Your task to perform on an android device: toggle notifications settings in the gmail app Image 0: 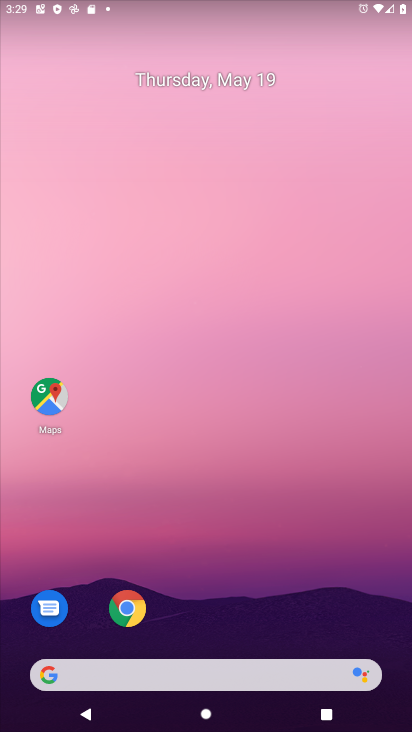
Step 0: drag from (318, 618) to (239, 116)
Your task to perform on an android device: toggle notifications settings in the gmail app Image 1: 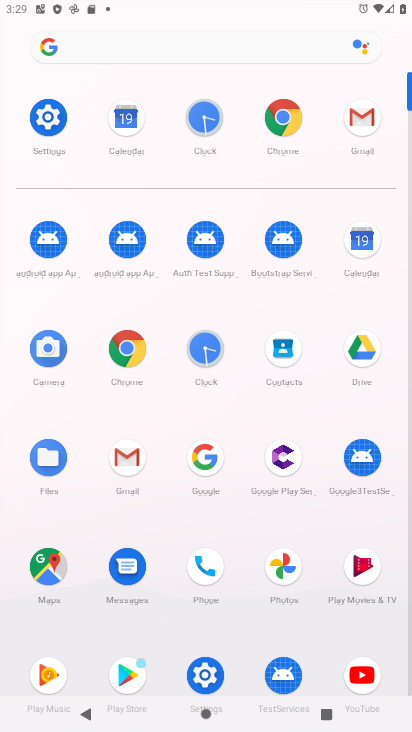
Step 1: click (369, 115)
Your task to perform on an android device: toggle notifications settings in the gmail app Image 2: 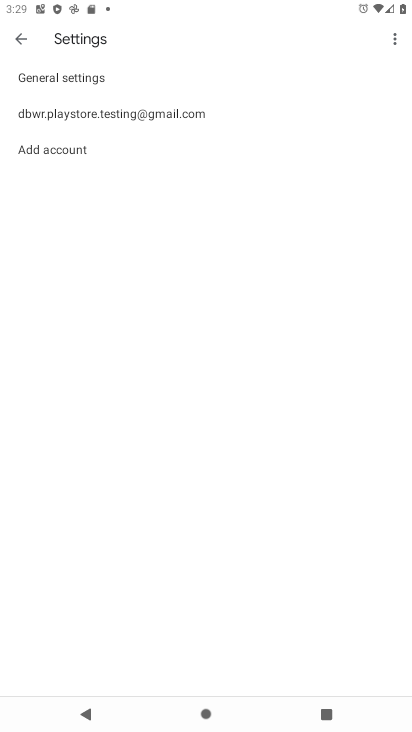
Step 2: click (21, 48)
Your task to perform on an android device: toggle notifications settings in the gmail app Image 3: 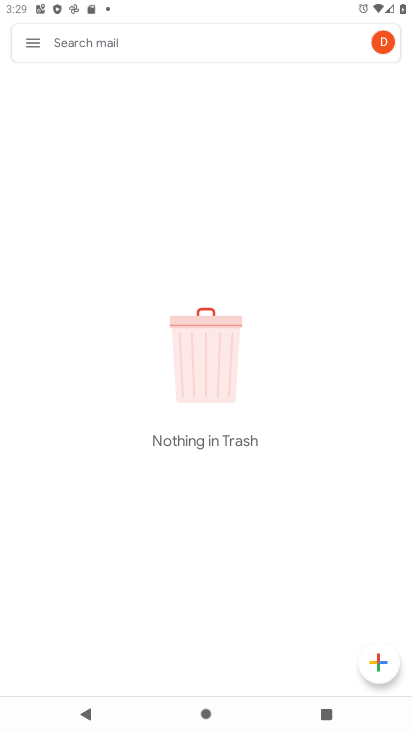
Step 3: click (21, 48)
Your task to perform on an android device: toggle notifications settings in the gmail app Image 4: 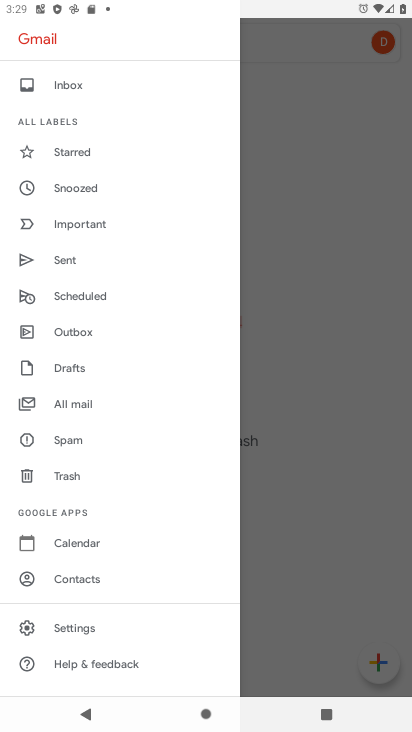
Step 4: click (113, 635)
Your task to perform on an android device: toggle notifications settings in the gmail app Image 5: 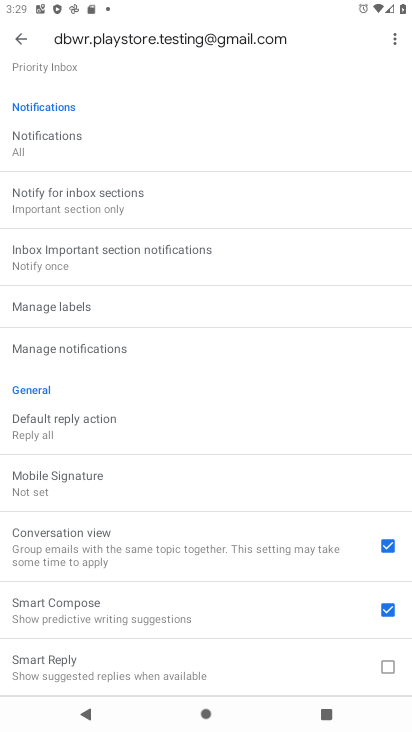
Step 5: click (25, 47)
Your task to perform on an android device: toggle notifications settings in the gmail app Image 6: 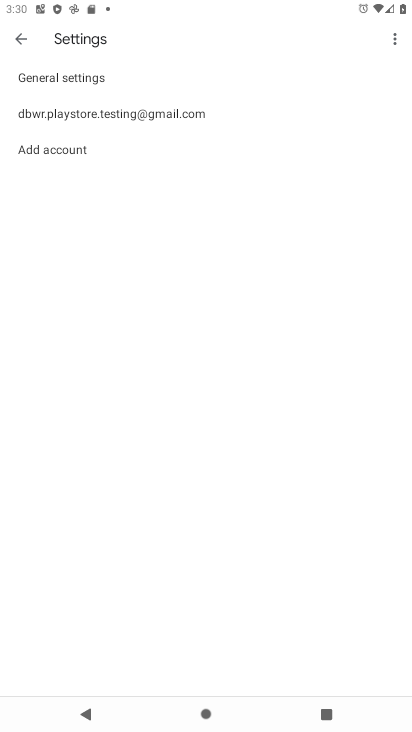
Step 6: click (64, 94)
Your task to perform on an android device: toggle notifications settings in the gmail app Image 7: 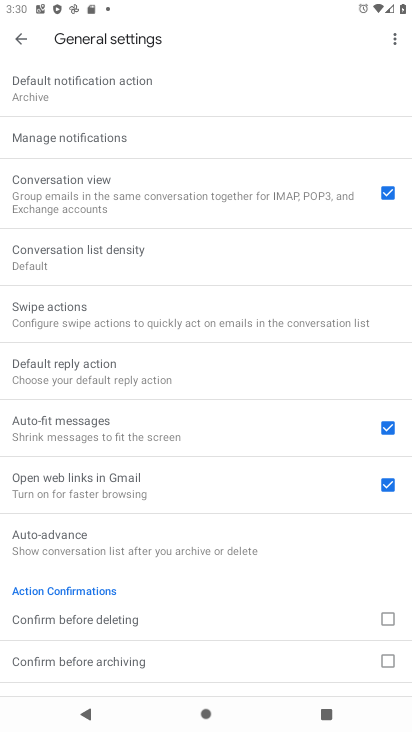
Step 7: click (71, 147)
Your task to perform on an android device: toggle notifications settings in the gmail app Image 8: 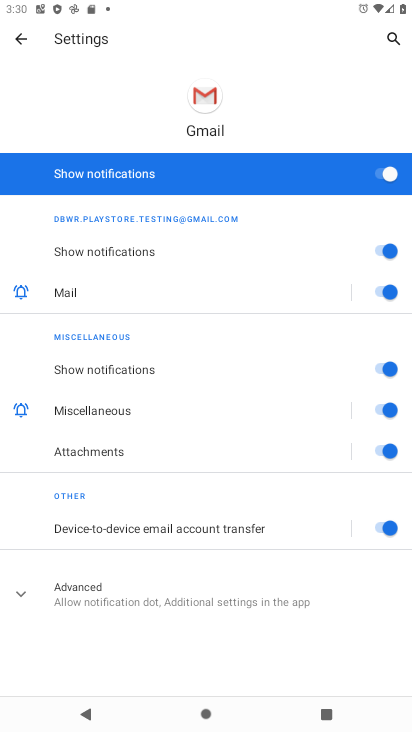
Step 8: click (115, 172)
Your task to perform on an android device: toggle notifications settings in the gmail app Image 9: 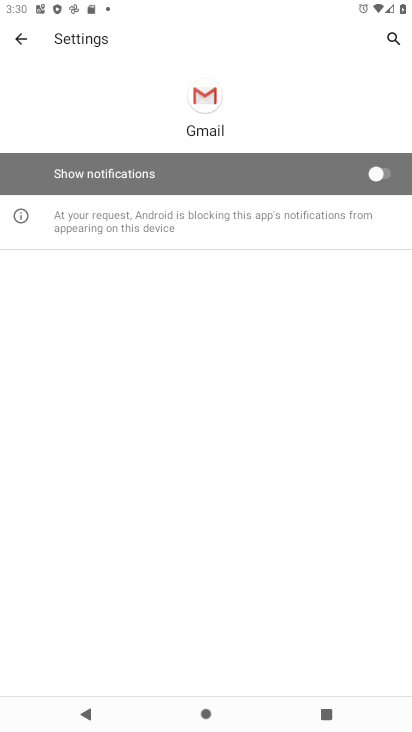
Step 9: task complete